Your task to perform on an android device: check data usage Image 0: 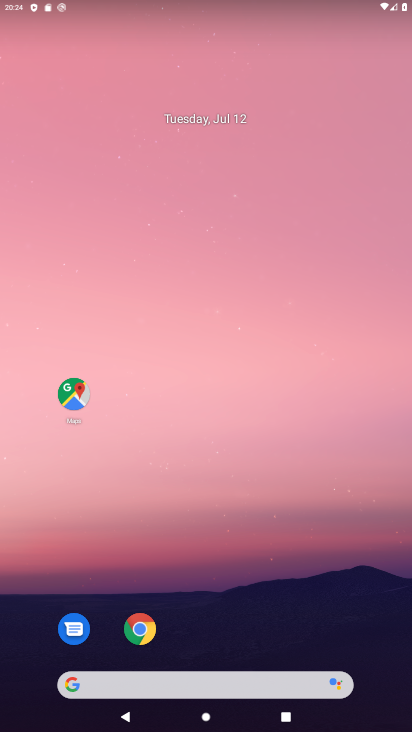
Step 0: drag from (175, 711) to (120, 10)
Your task to perform on an android device: check data usage Image 1: 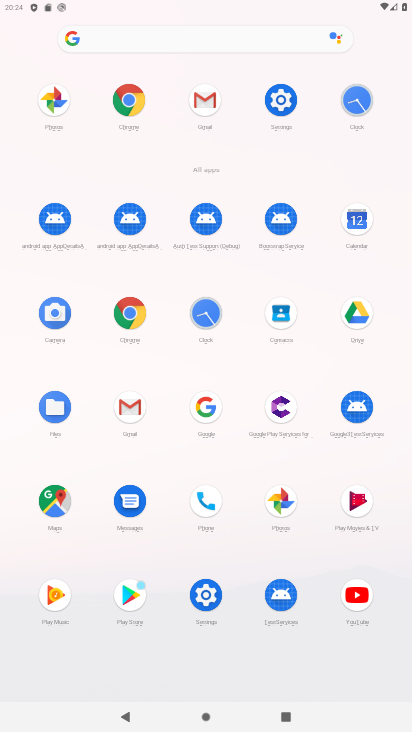
Step 1: click (286, 102)
Your task to perform on an android device: check data usage Image 2: 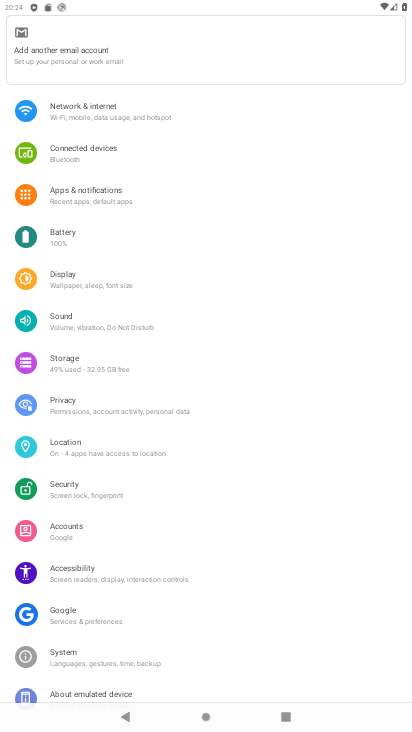
Step 2: click (123, 113)
Your task to perform on an android device: check data usage Image 3: 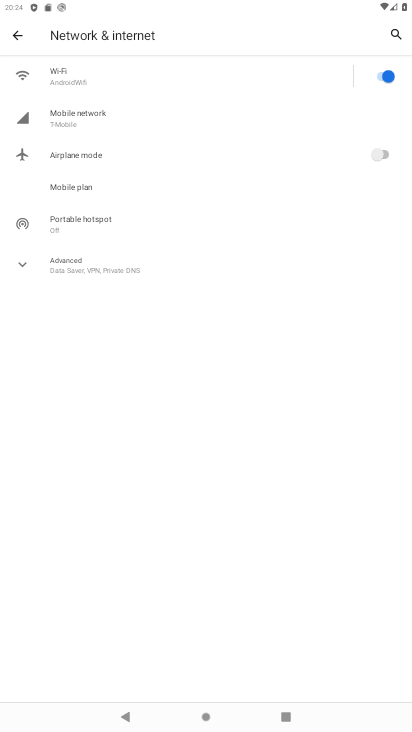
Step 3: click (122, 128)
Your task to perform on an android device: check data usage Image 4: 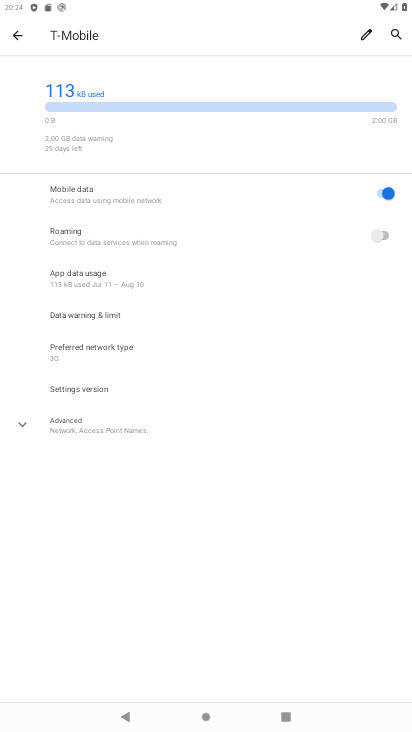
Step 4: click (243, 113)
Your task to perform on an android device: check data usage Image 5: 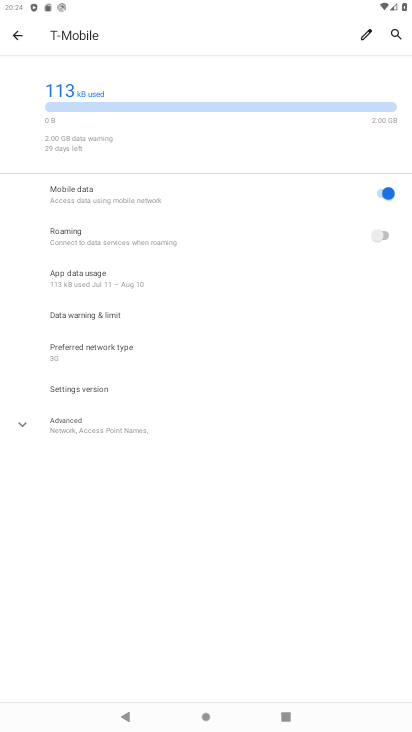
Step 5: task complete